Your task to perform on an android device: visit the assistant section in the google photos Image 0: 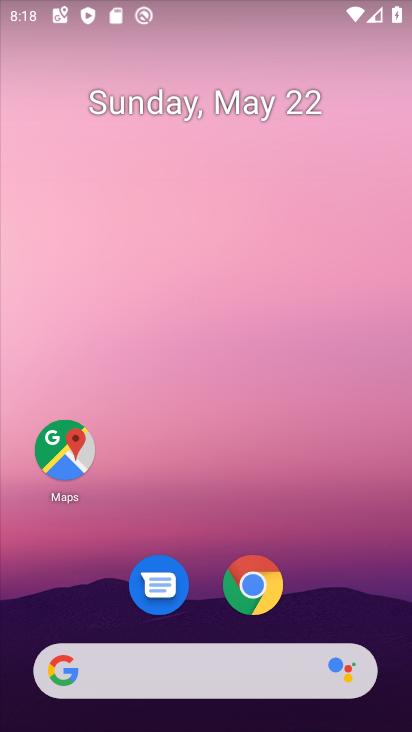
Step 0: drag from (207, 484) to (163, 33)
Your task to perform on an android device: visit the assistant section in the google photos Image 1: 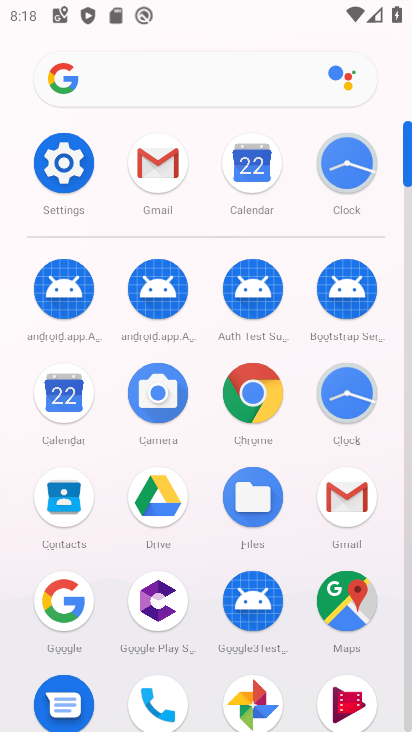
Step 1: click (253, 696)
Your task to perform on an android device: visit the assistant section in the google photos Image 2: 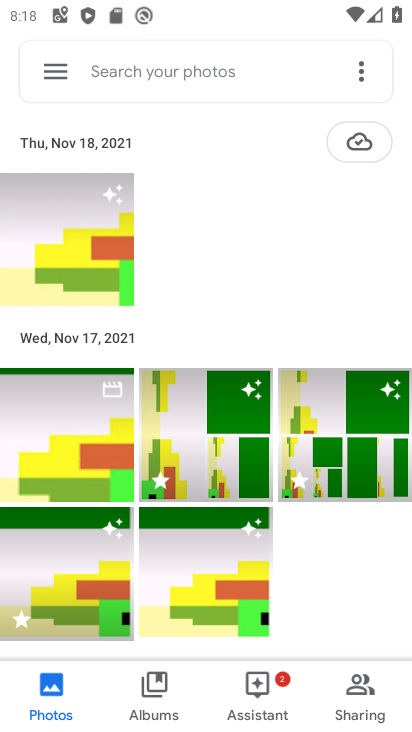
Step 2: click (247, 687)
Your task to perform on an android device: visit the assistant section in the google photos Image 3: 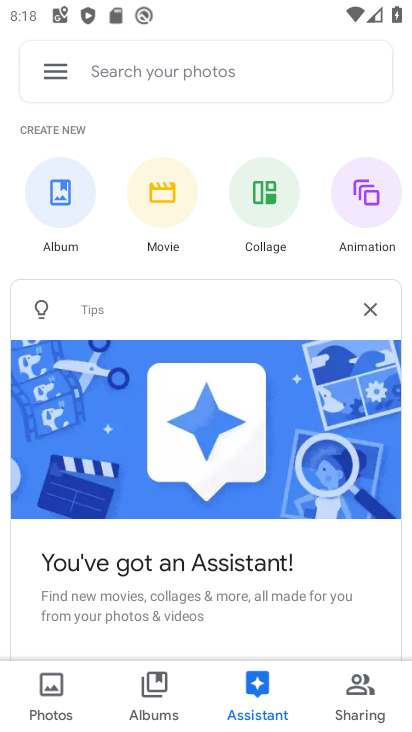
Step 3: task complete